Your task to perform on an android device: turn off smart reply in the gmail app Image 0: 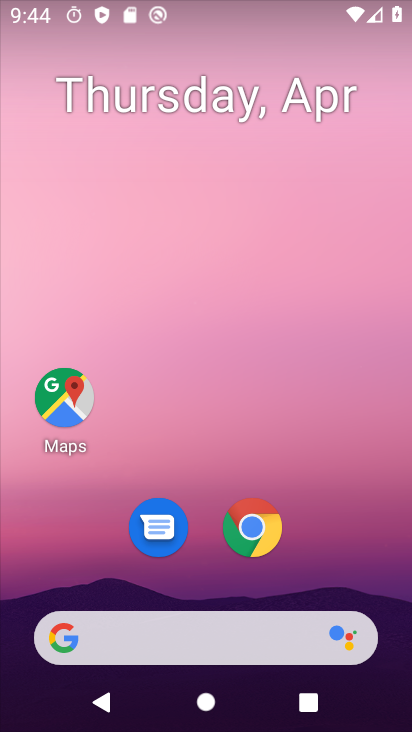
Step 0: drag from (210, 604) to (301, 108)
Your task to perform on an android device: turn off smart reply in the gmail app Image 1: 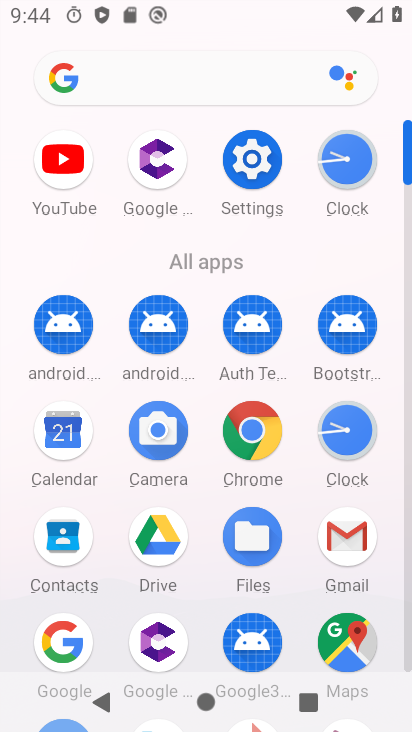
Step 1: click (359, 546)
Your task to perform on an android device: turn off smart reply in the gmail app Image 2: 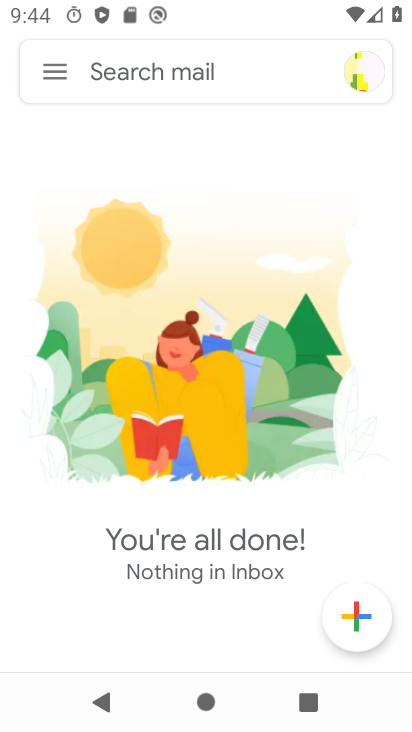
Step 2: click (59, 77)
Your task to perform on an android device: turn off smart reply in the gmail app Image 3: 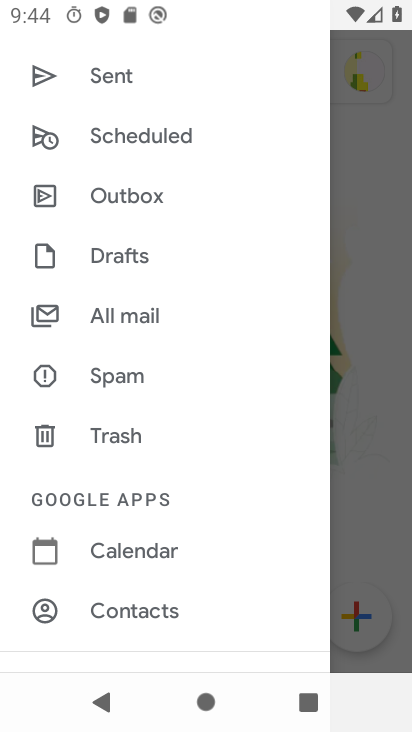
Step 3: drag from (190, 605) to (298, 71)
Your task to perform on an android device: turn off smart reply in the gmail app Image 4: 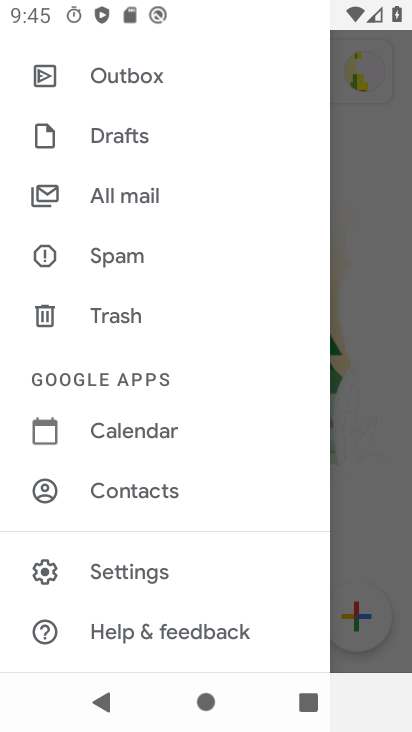
Step 4: click (124, 575)
Your task to perform on an android device: turn off smart reply in the gmail app Image 5: 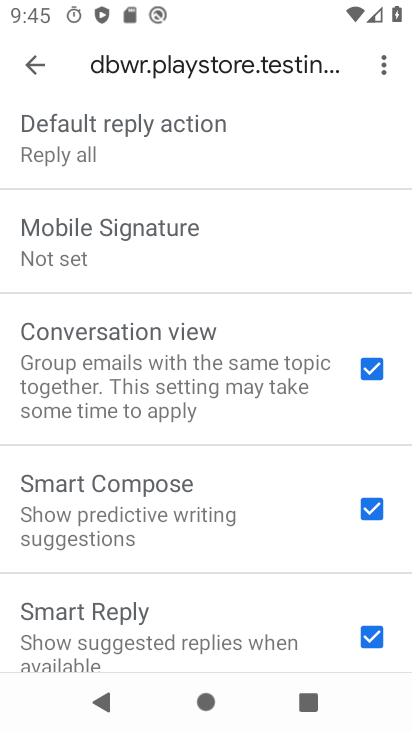
Step 5: click (374, 641)
Your task to perform on an android device: turn off smart reply in the gmail app Image 6: 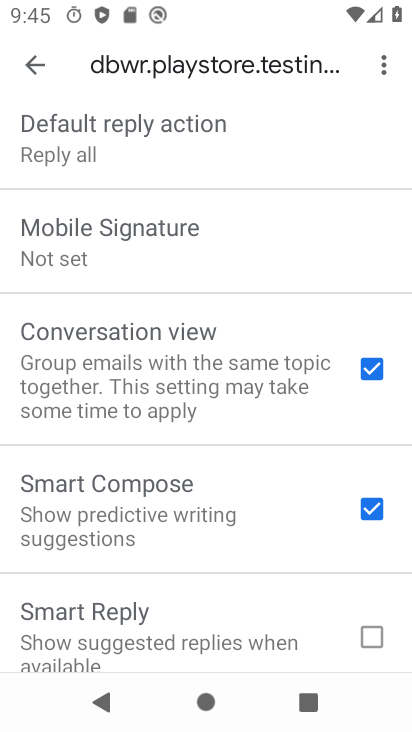
Step 6: task complete